Your task to perform on an android device: Open Google Maps and go to "Timeline" Image 0: 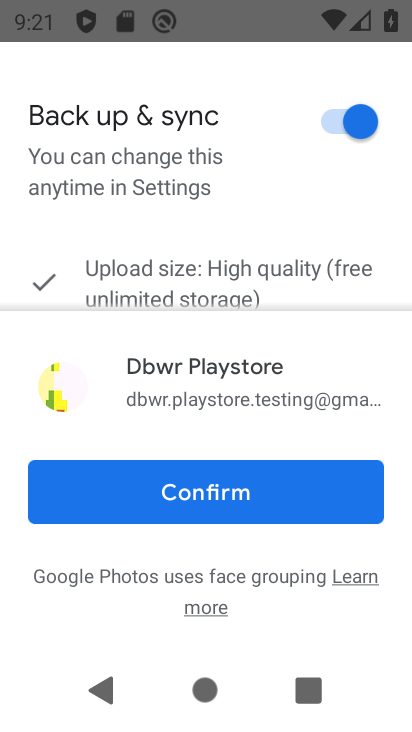
Step 0: press home button
Your task to perform on an android device: Open Google Maps and go to "Timeline" Image 1: 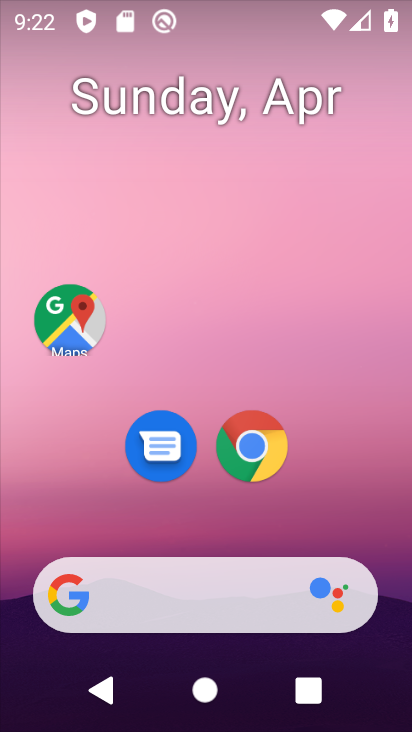
Step 1: drag from (201, 520) to (214, 69)
Your task to perform on an android device: Open Google Maps and go to "Timeline" Image 2: 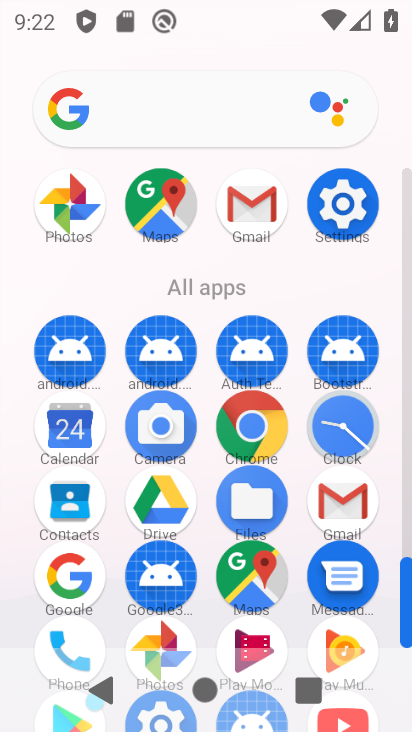
Step 2: click (239, 566)
Your task to perform on an android device: Open Google Maps and go to "Timeline" Image 3: 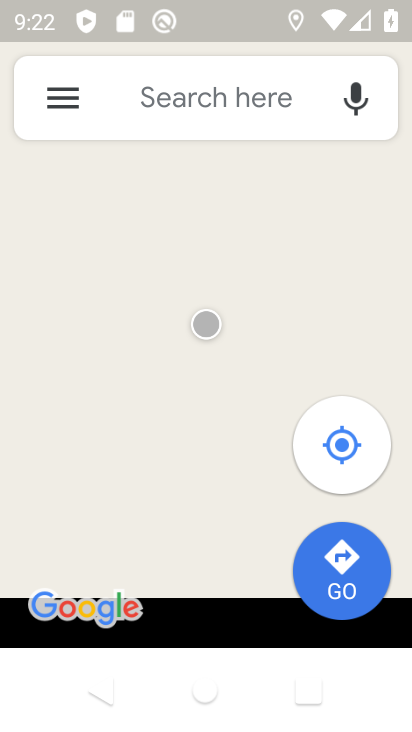
Step 3: click (75, 100)
Your task to perform on an android device: Open Google Maps and go to "Timeline" Image 4: 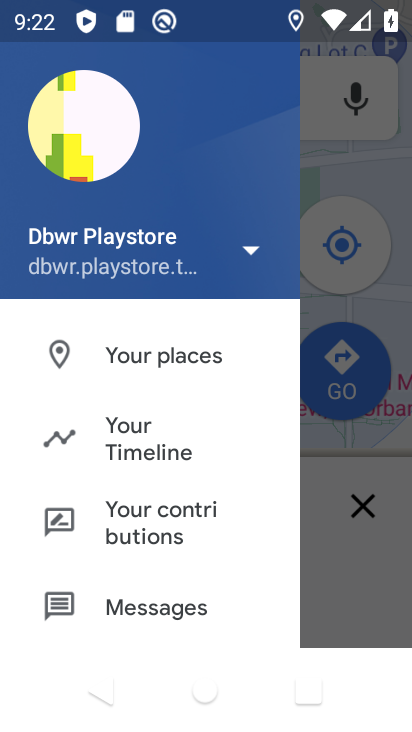
Step 4: click (149, 430)
Your task to perform on an android device: Open Google Maps and go to "Timeline" Image 5: 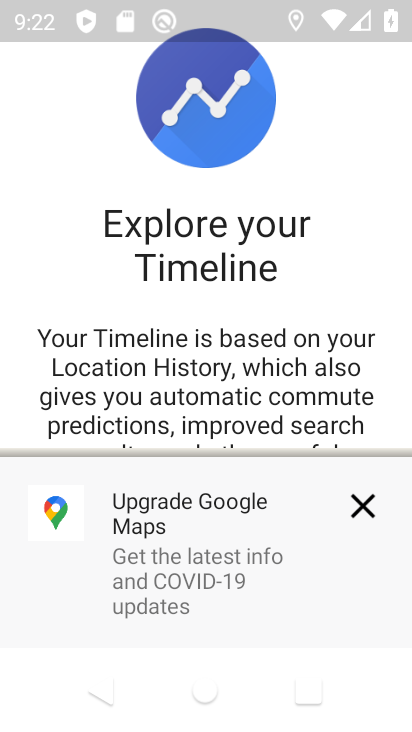
Step 5: drag from (233, 431) to (298, 78)
Your task to perform on an android device: Open Google Maps and go to "Timeline" Image 6: 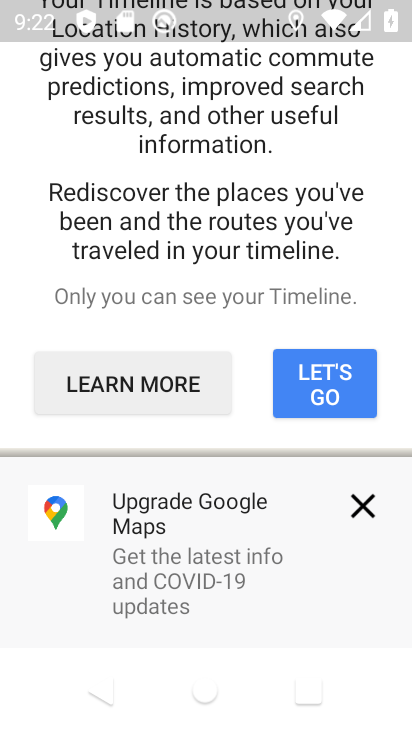
Step 6: click (368, 505)
Your task to perform on an android device: Open Google Maps and go to "Timeline" Image 7: 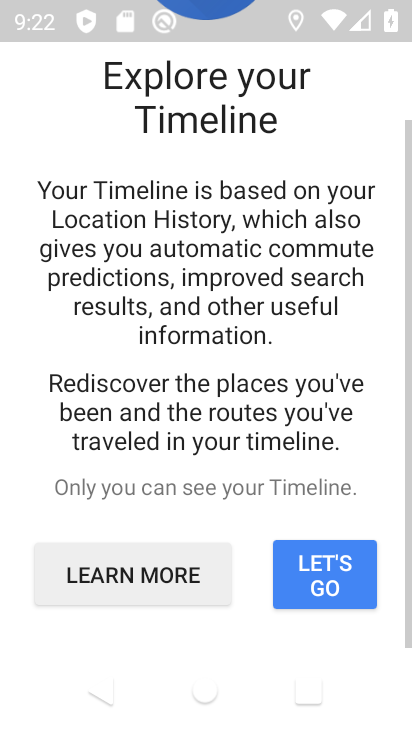
Step 7: click (312, 395)
Your task to perform on an android device: Open Google Maps and go to "Timeline" Image 8: 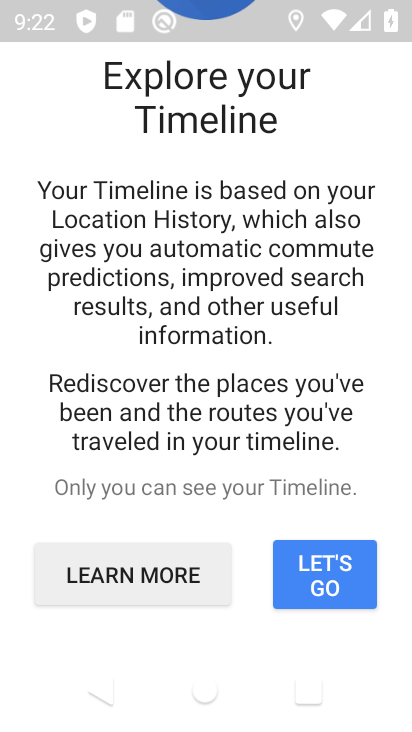
Step 8: click (328, 531)
Your task to perform on an android device: Open Google Maps and go to "Timeline" Image 9: 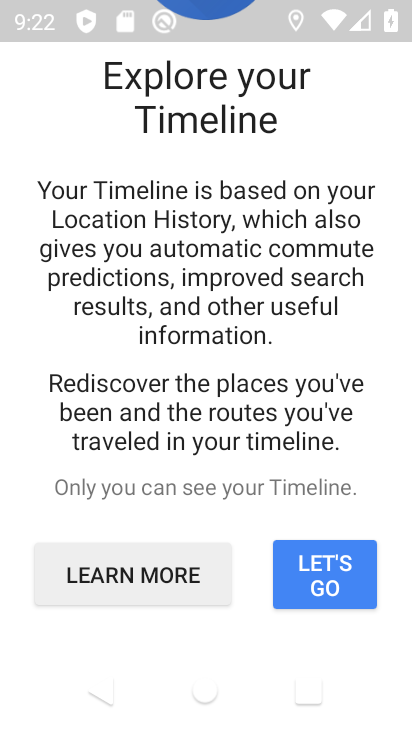
Step 9: click (325, 561)
Your task to perform on an android device: Open Google Maps and go to "Timeline" Image 10: 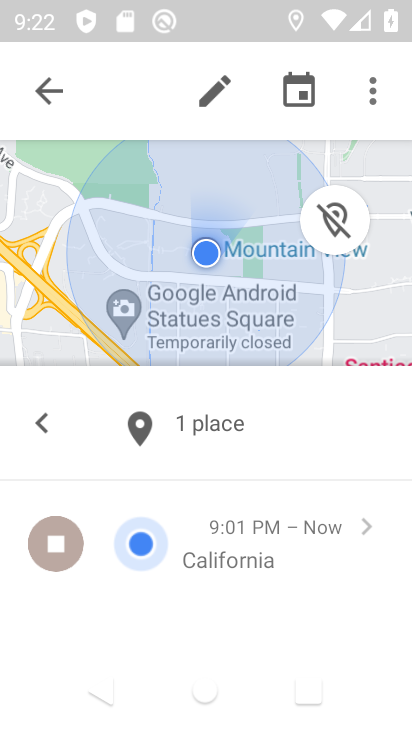
Step 10: task complete